Your task to perform on an android device: set the stopwatch Image 0: 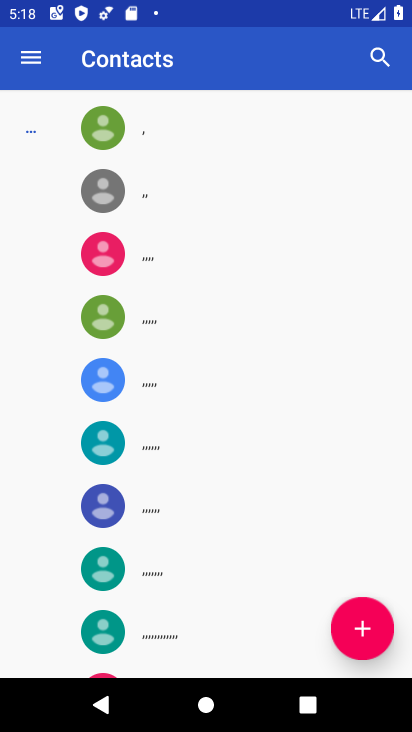
Step 0: press home button
Your task to perform on an android device: set the stopwatch Image 1: 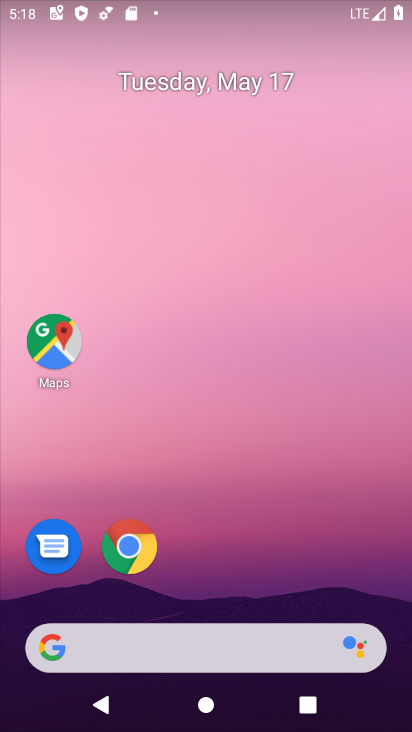
Step 1: drag from (222, 585) to (269, 176)
Your task to perform on an android device: set the stopwatch Image 2: 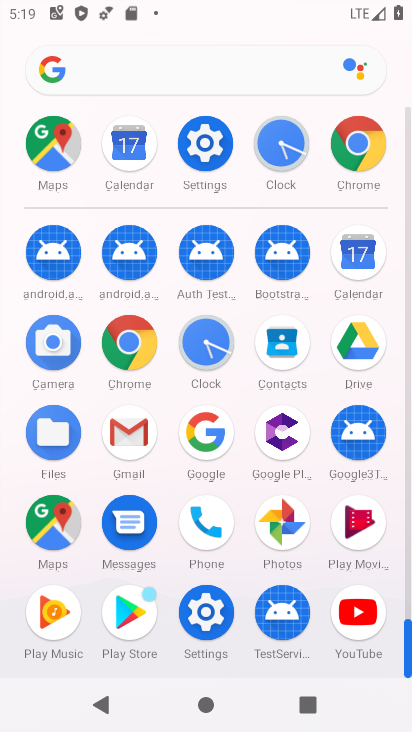
Step 2: click (203, 355)
Your task to perform on an android device: set the stopwatch Image 3: 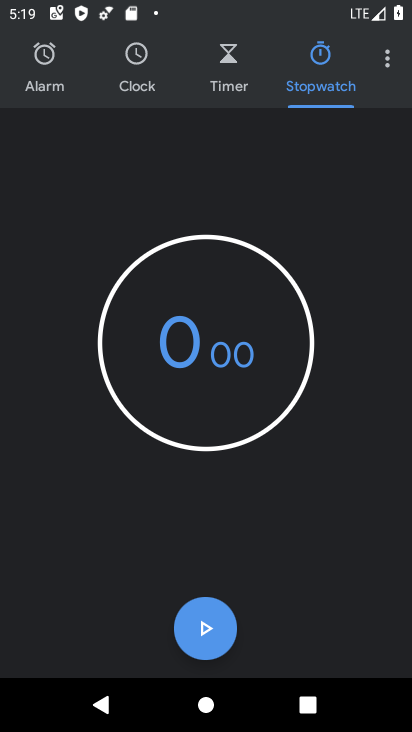
Step 3: click (181, 643)
Your task to perform on an android device: set the stopwatch Image 4: 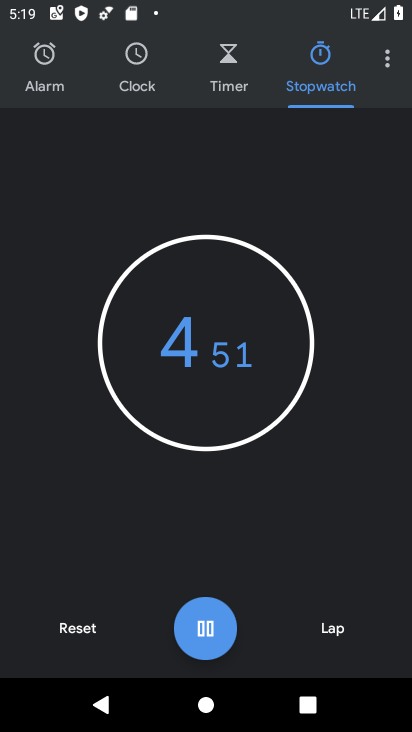
Step 4: click (208, 627)
Your task to perform on an android device: set the stopwatch Image 5: 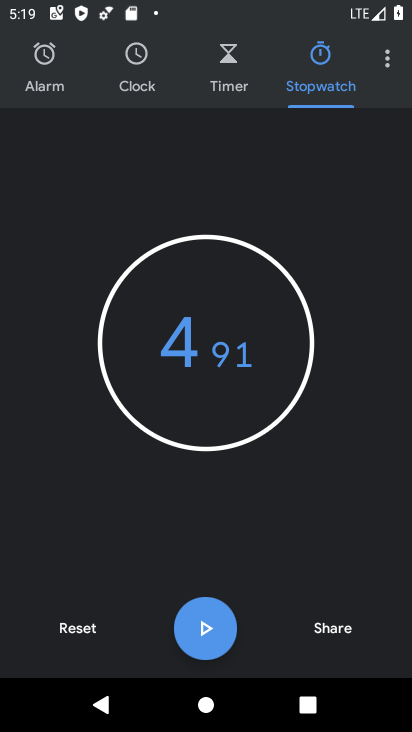
Step 5: task complete